Your task to perform on an android device: allow cookies in the chrome app Image 0: 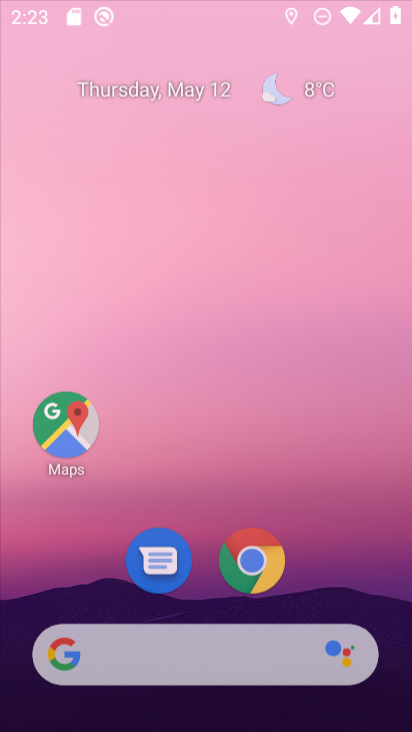
Step 0: drag from (349, 548) to (219, 0)
Your task to perform on an android device: allow cookies in the chrome app Image 1: 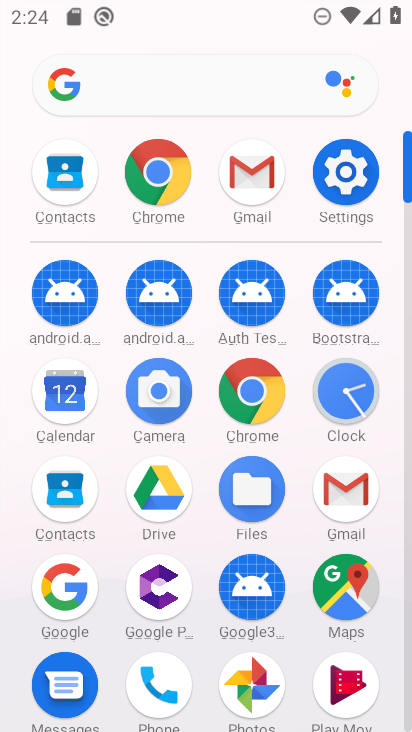
Step 1: click (147, 172)
Your task to perform on an android device: allow cookies in the chrome app Image 2: 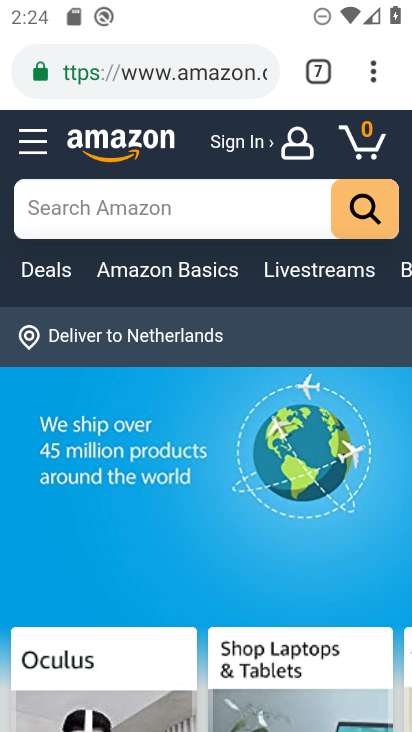
Step 2: drag from (374, 71) to (94, 617)
Your task to perform on an android device: allow cookies in the chrome app Image 3: 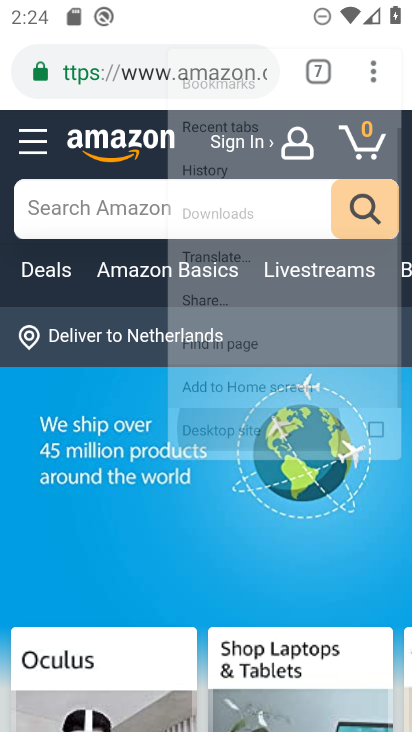
Step 3: drag from (100, 609) to (177, 324)
Your task to perform on an android device: allow cookies in the chrome app Image 4: 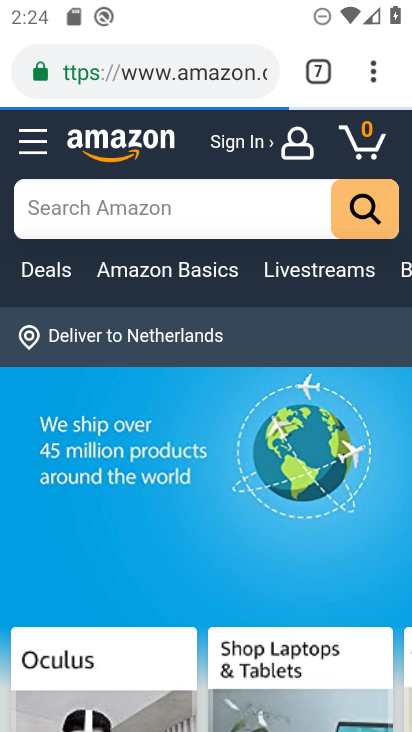
Step 4: drag from (368, 75) to (136, 549)
Your task to perform on an android device: allow cookies in the chrome app Image 5: 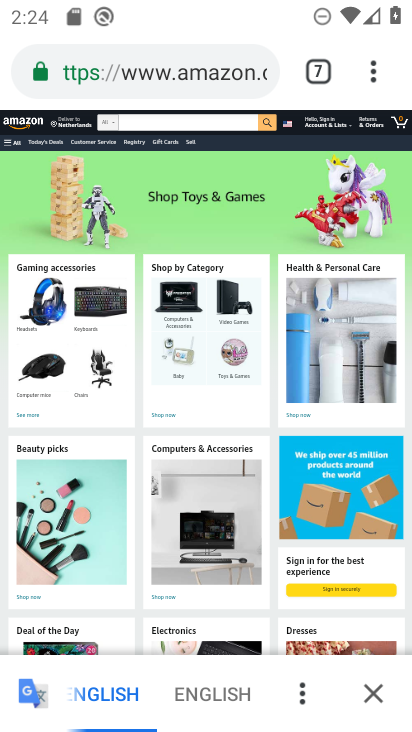
Step 5: click (379, 70)
Your task to perform on an android device: allow cookies in the chrome app Image 6: 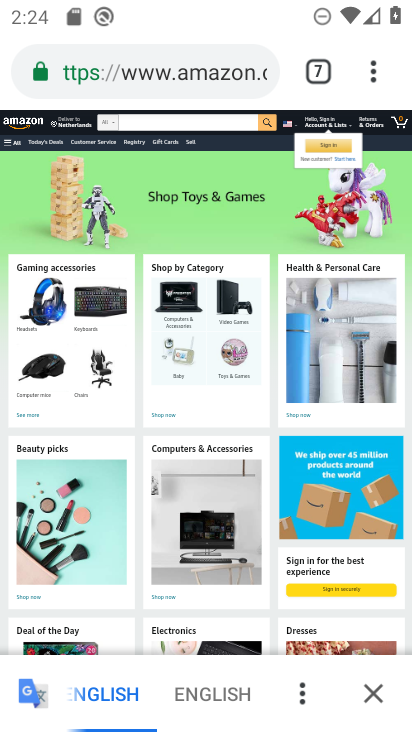
Step 6: drag from (371, 81) to (131, 567)
Your task to perform on an android device: allow cookies in the chrome app Image 7: 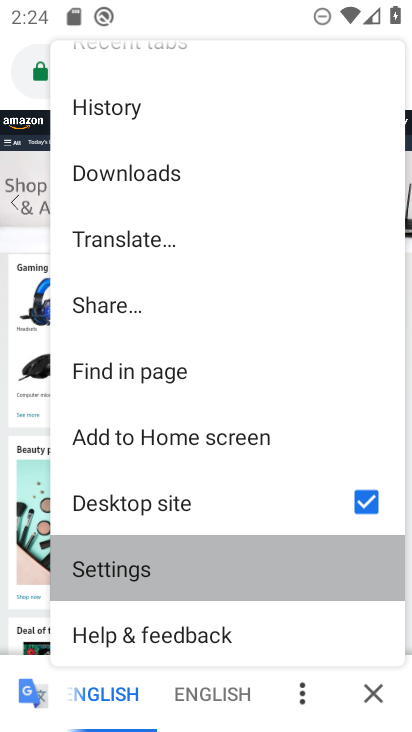
Step 7: click (126, 572)
Your task to perform on an android device: allow cookies in the chrome app Image 8: 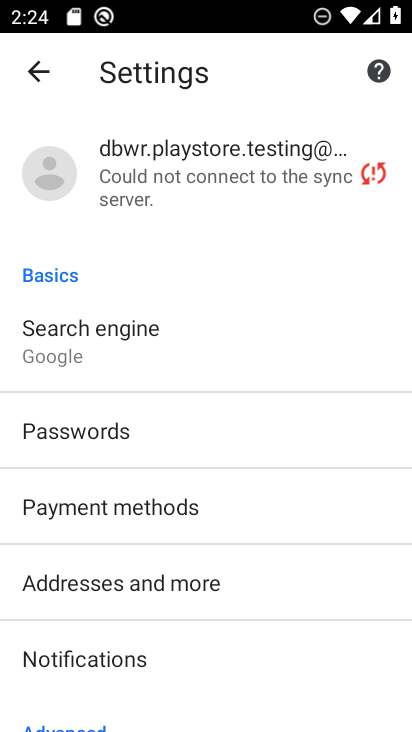
Step 8: drag from (159, 498) to (119, 84)
Your task to perform on an android device: allow cookies in the chrome app Image 9: 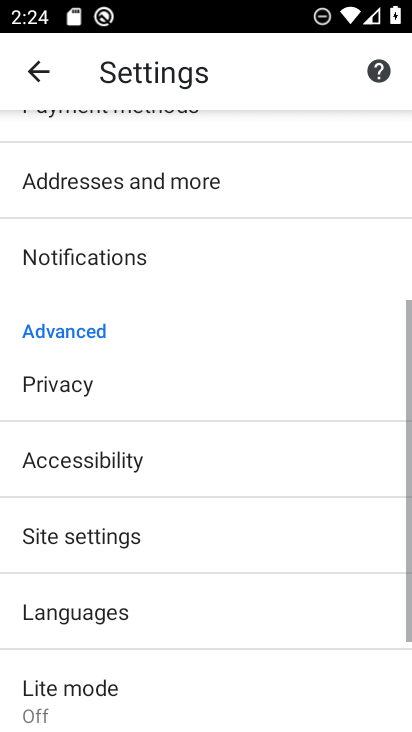
Step 9: drag from (155, 495) to (124, 89)
Your task to perform on an android device: allow cookies in the chrome app Image 10: 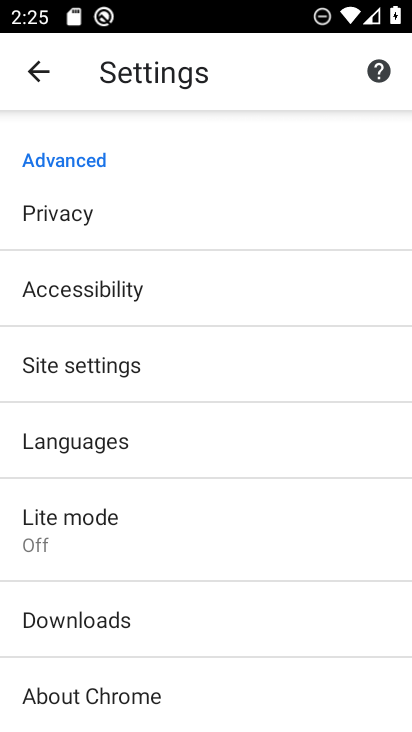
Step 10: click (66, 369)
Your task to perform on an android device: allow cookies in the chrome app Image 11: 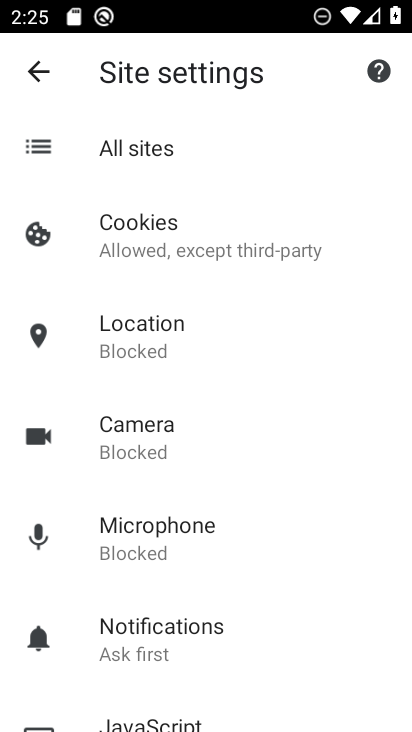
Step 11: click (169, 241)
Your task to perform on an android device: allow cookies in the chrome app Image 12: 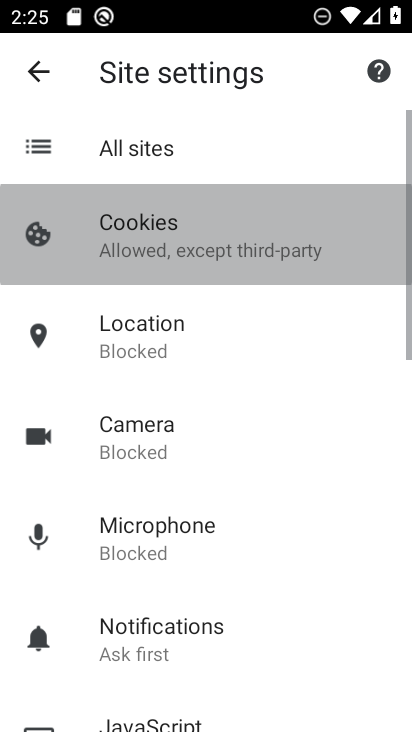
Step 12: click (169, 240)
Your task to perform on an android device: allow cookies in the chrome app Image 13: 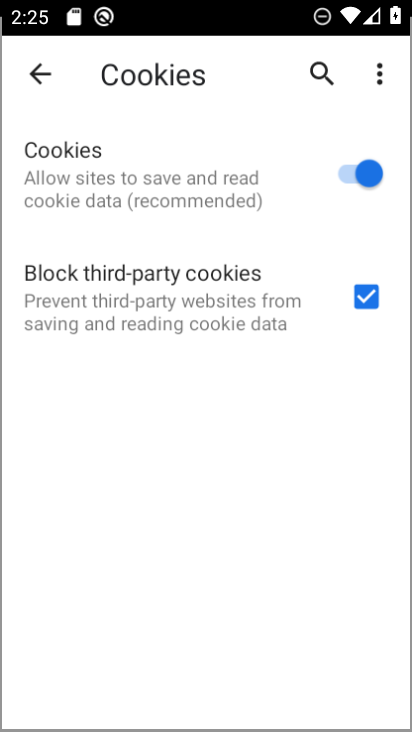
Step 13: click (169, 240)
Your task to perform on an android device: allow cookies in the chrome app Image 14: 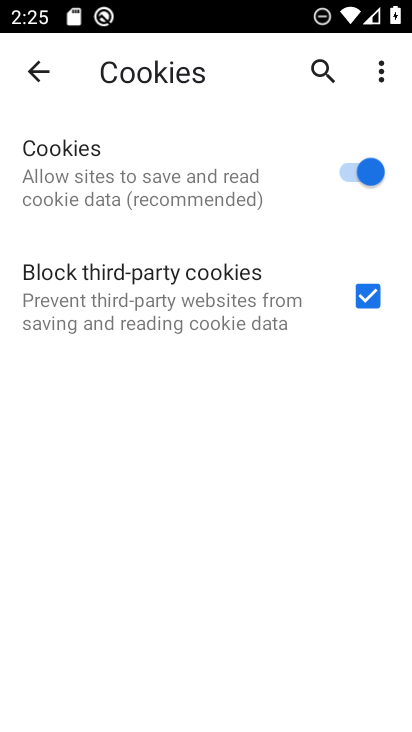
Step 14: click (169, 240)
Your task to perform on an android device: allow cookies in the chrome app Image 15: 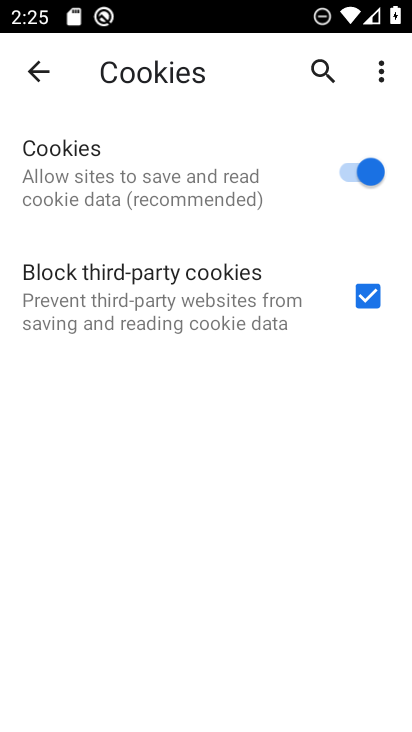
Step 15: click (193, 191)
Your task to perform on an android device: allow cookies in the chrome app Image 16: 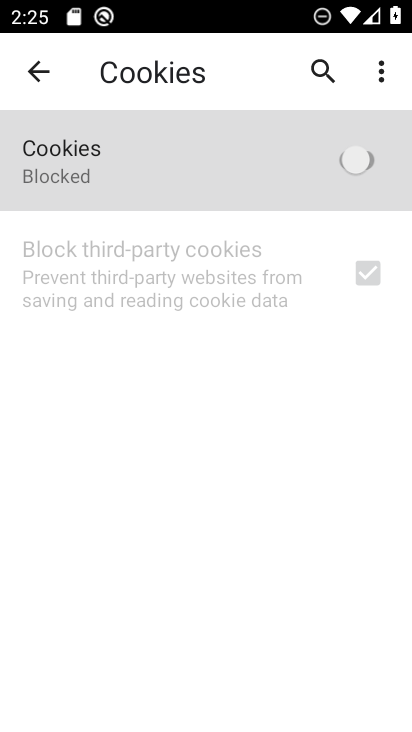
Step 16: click (193, 191)
Your task to perform on an android device: allow cookies in the chrome app Image 17: 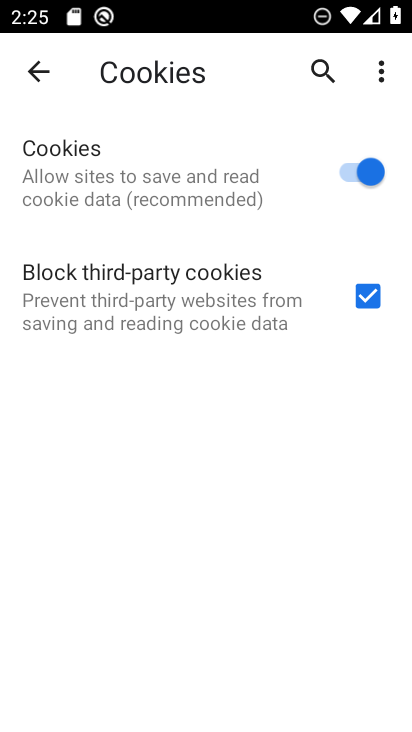
Step 17: task complete